Your task to perform on an android device: refresh tabs in the chrome app Image 0: 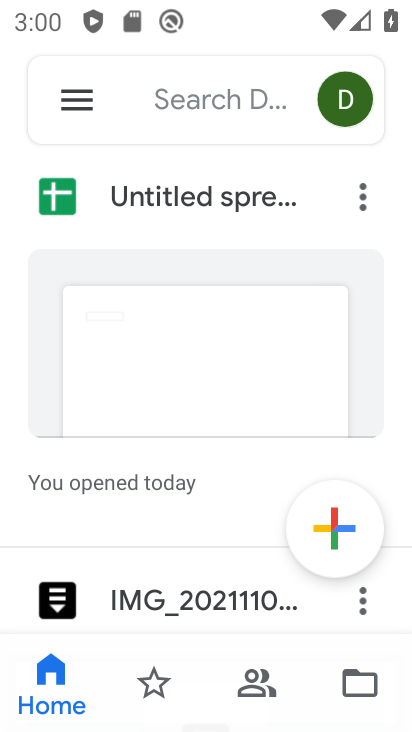
Step 0: press home button
Your task to perform on an android device: refresh tabs in the chrome app Image 1: 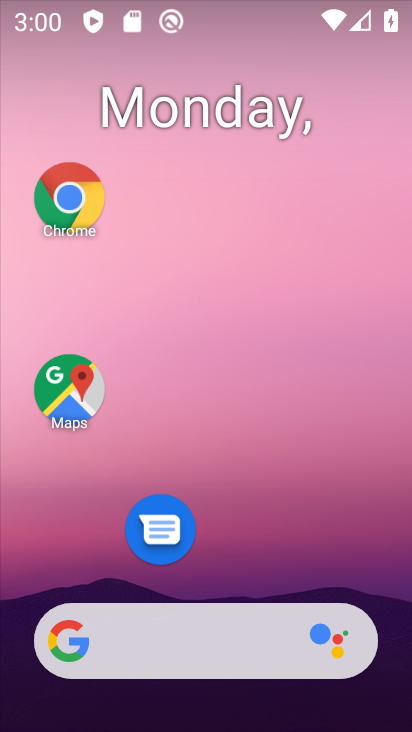
Step 1: click (331, 576)
Your task to perform on an android device: refresh tabs in the chrome app Image 2: 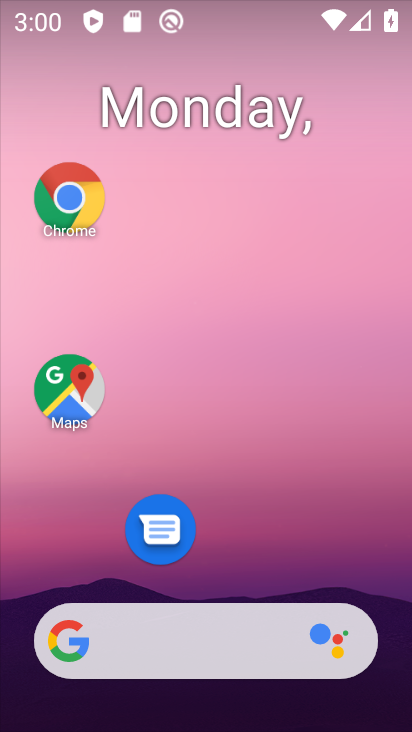
Step 2: drag from (220, 630) to (220, 85)
Your task to perform on an android device: refresh tabs in the chrome app Image 3: 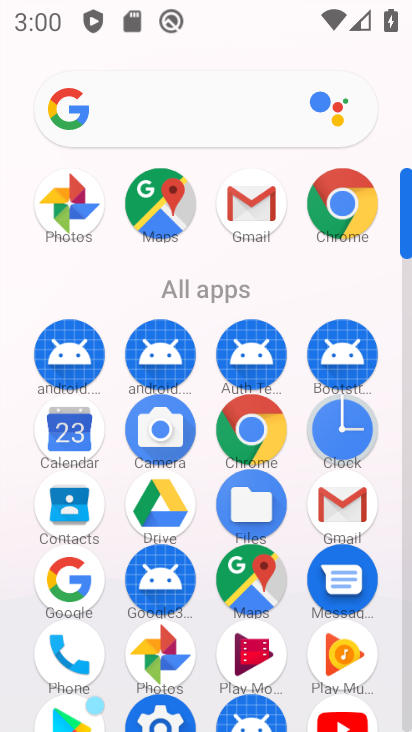
Step 3: click (338, 218)
Your task to perform on an android device: refresh tabs in the chrome app Image 4: 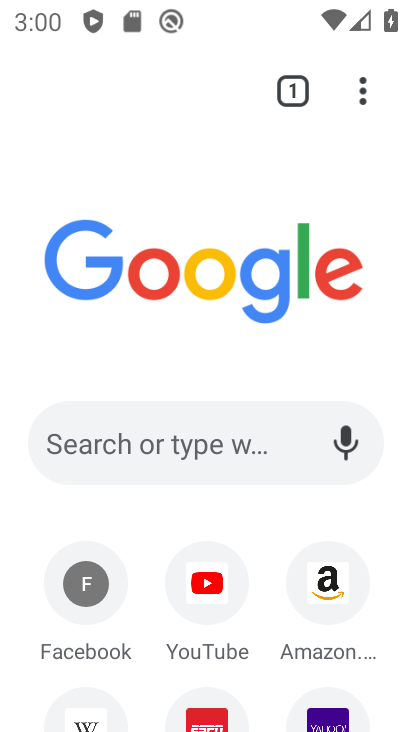
Step 4: click (362, 100)
Your task to perform on an android device: refresh tabs in the chrome app Image 5: 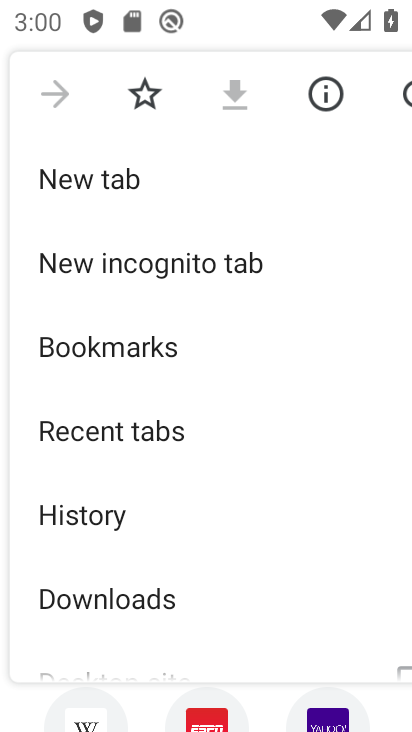
Step 5: drag from (380, 105) to (184, 155)
Your task to perform on an android device: refresh tabs in the chrome app Image 6: 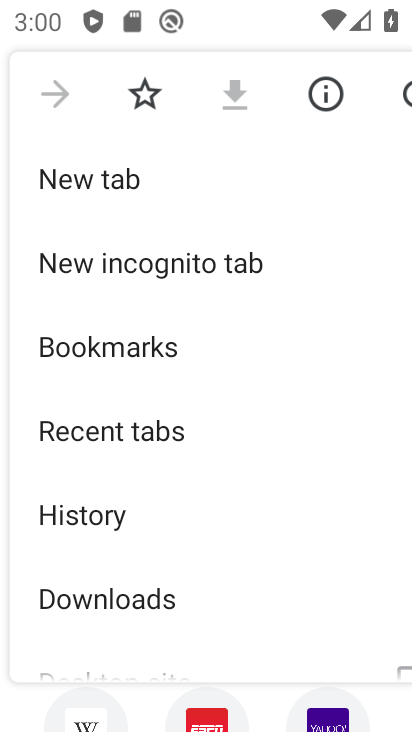
Step 6: drag from (365, 93) to (130, 144)
Your task to perform on an android device: refresh tabs in the chrome app Image 7: 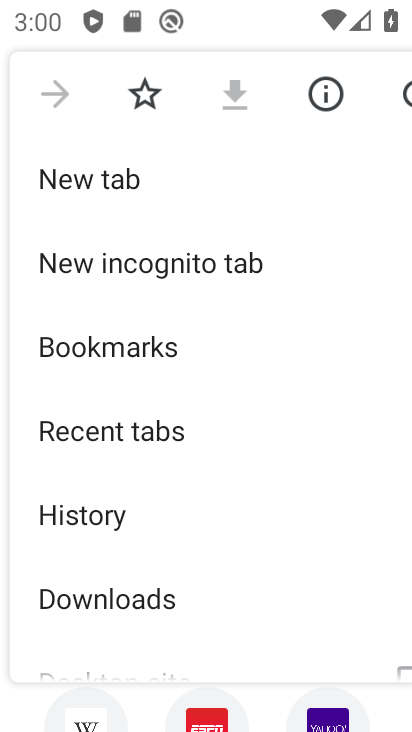
Step 7: click (404, 99)
Your task to perform on an android device: refresh tabs in the chrome app Image 8: 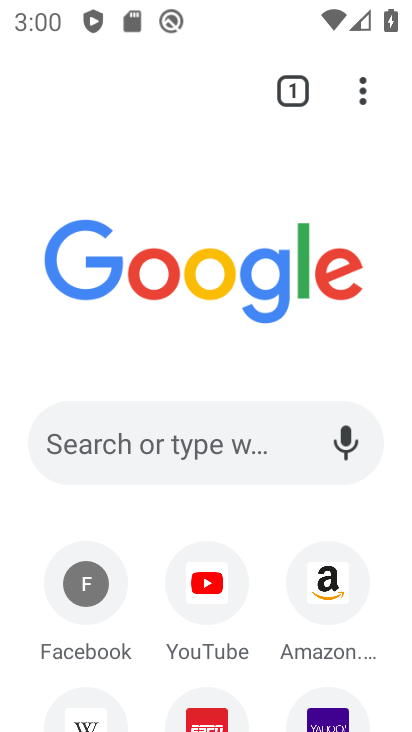
Step 8: task complete